Your task to perform on an android device: see creations saved in the google photos Image 0: 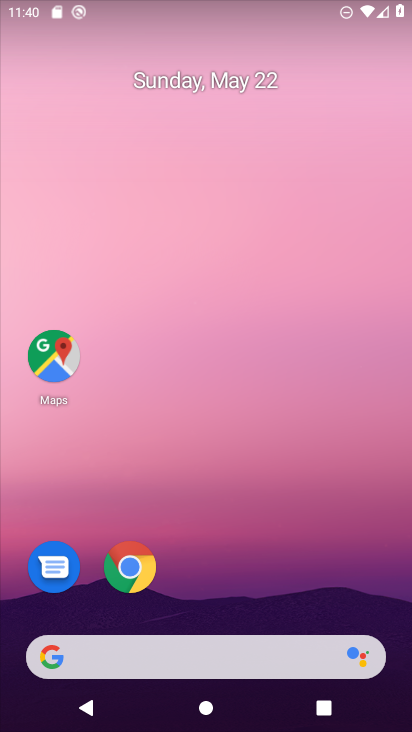
Step 0: drag from (201, 617) to (357, 543)
Your task to perform on an android device: see creations saved in the google photos Image 1: 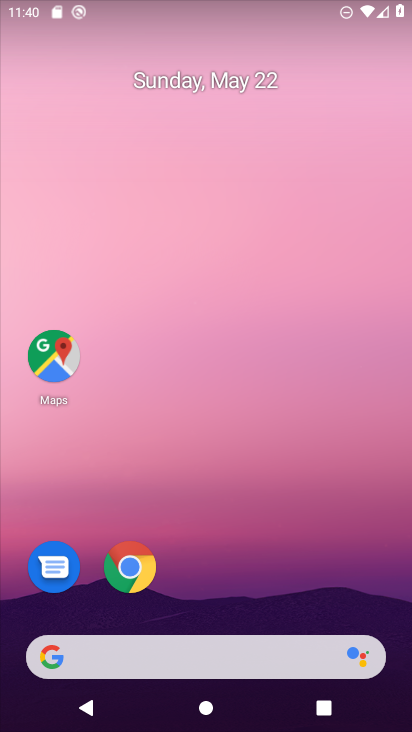
Step 1: drag from (151, 705) to (324, 25)
Your task to perform on an android device: see creations saved in the google photos Image 2: 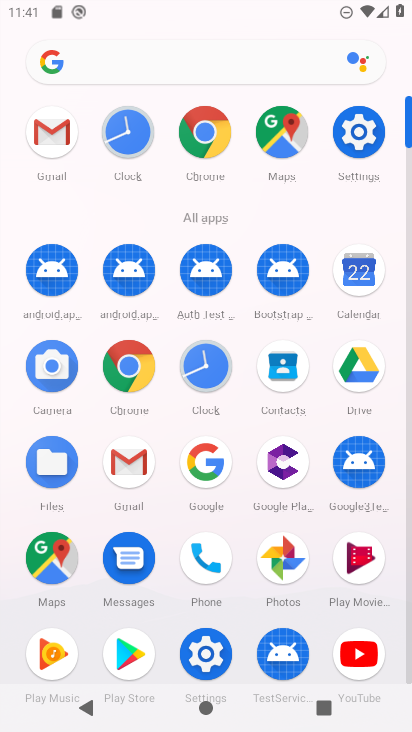
Step 2: click (281, 558)
Your task to perform on an android device: see creations saved in the google photos Image 3: 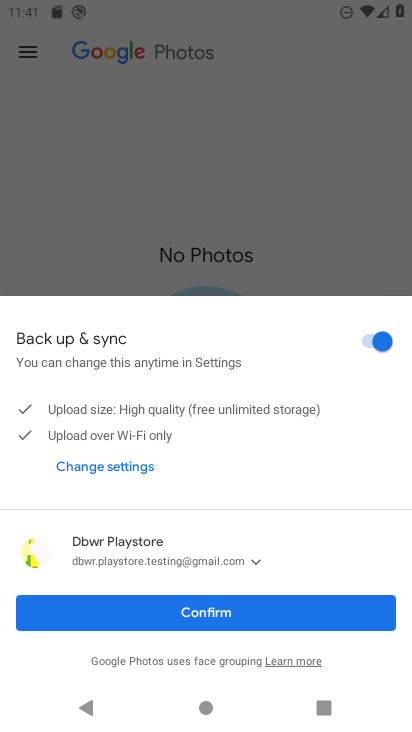
Step 3: click (191, 612)
Your task to perform on an android device: see creations saved in the google photos Image 4: 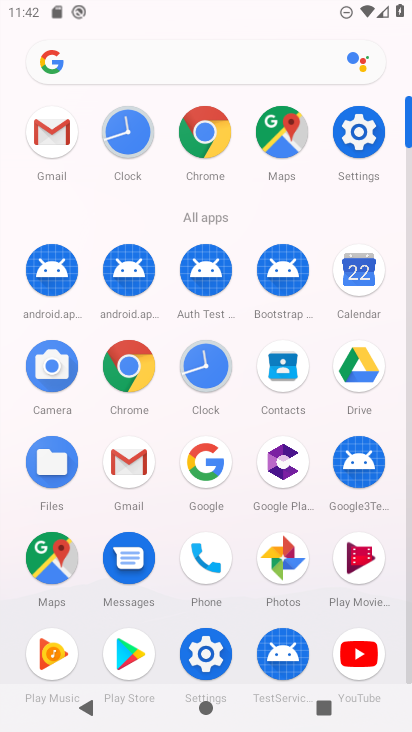
Step 4: click (290, 537)
Your task to perform on an android device: see creations saved in the google photos Image 5: 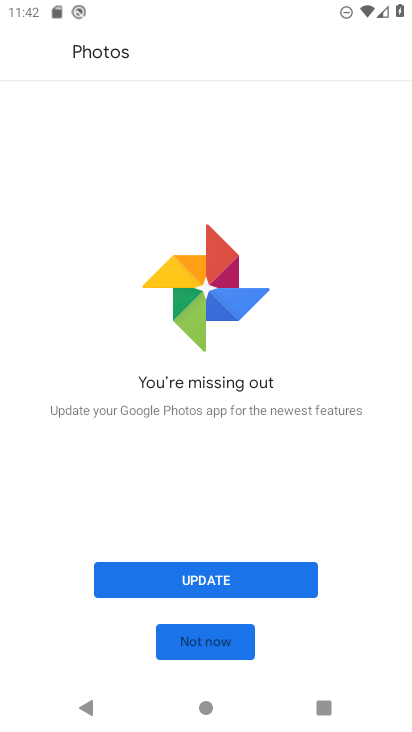
Step 5: click (224, 644)
Your task to perform on an android device: see creations saved in the google photos Image 6: 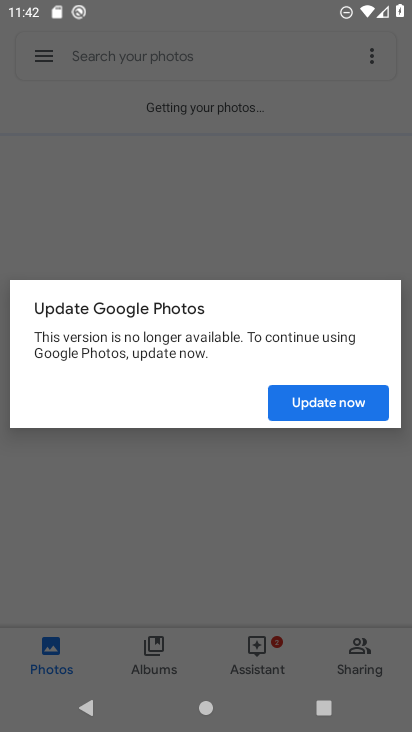
Step 6: click (299, 399)
Your task to perform on an android device: see creations saved in the google photos Image 7: 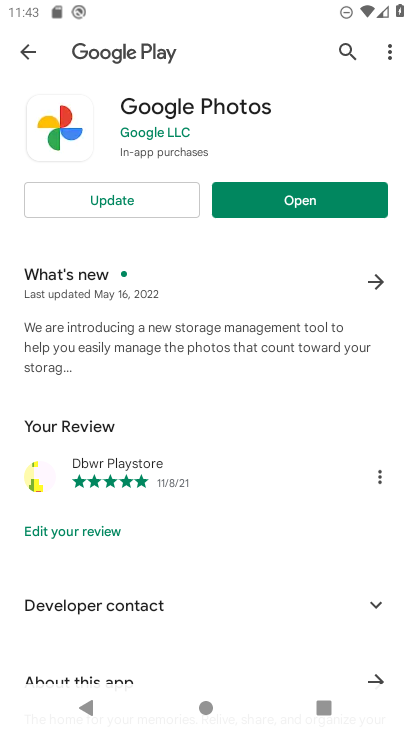
Step 7: click (280, 186)
Your task to perform on an android device: see creations saved in the google photos Image 8: 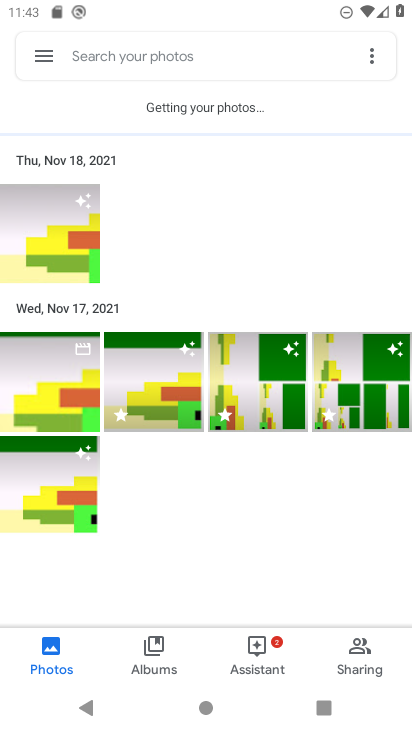
Step 8: click (328, 649)
Your task to perform on an android device: see creations saved in the google photos Image 9: 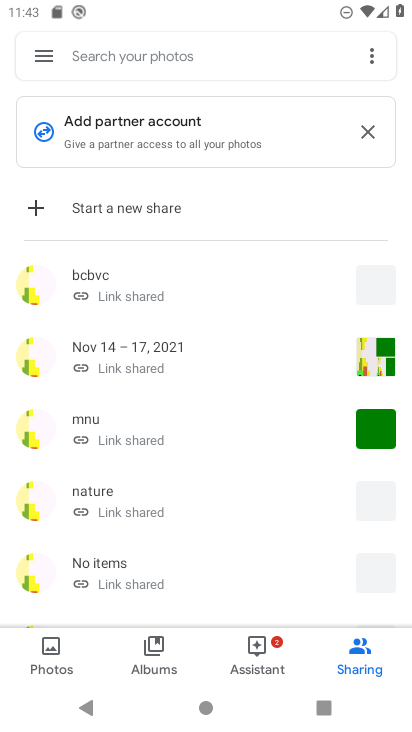
Step 9: click (248, 662)
Your task to perform on an android device: see creations saved in the google photos Image 10: 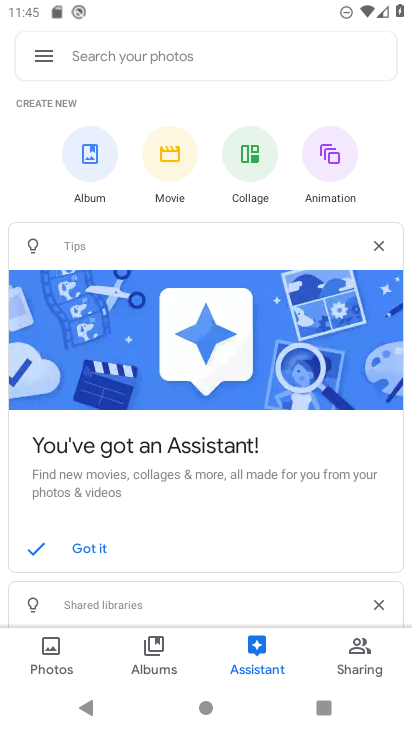
Step 10: task complete